Your task to perform on an android device: Go to Reddit.com Image 0: 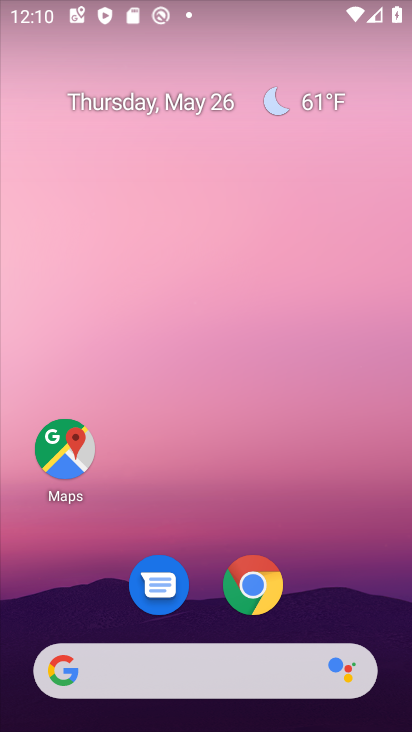
Step 0: click (184, 672)
Your task to perform on an android device: Go to Reddit.com Image 1: 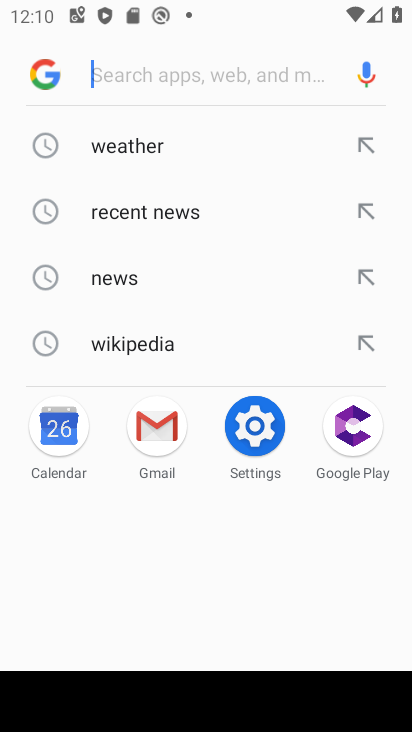
Step 1: type "reddit.com"
Your task to perform on an android device: Go to Reddit.com Image 2: 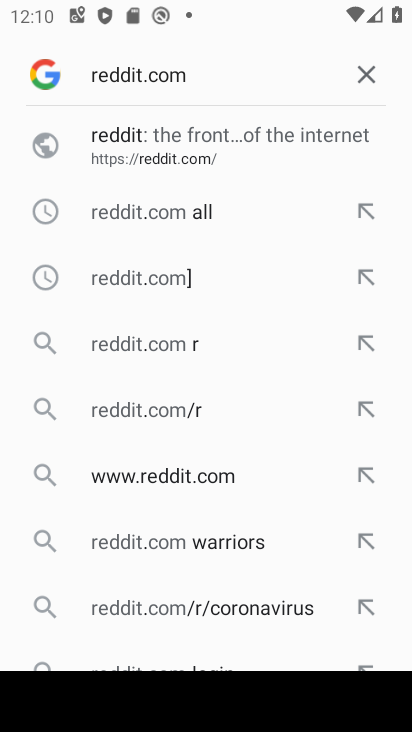
Step 2: click (109, 148)
Your task to perform on an android device: Go to Reddit.com Image 3: 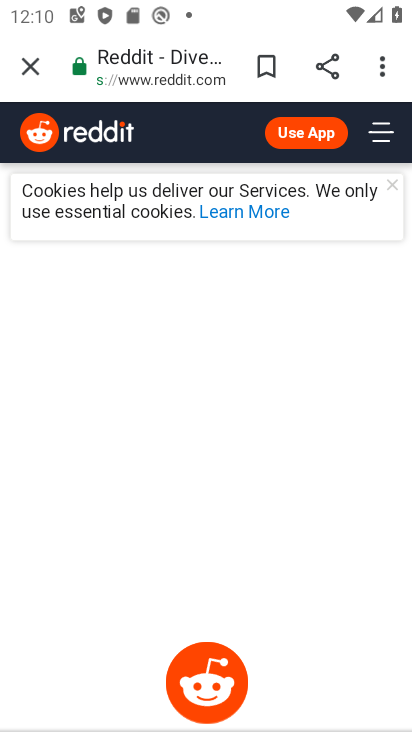
Step 3: task complete